Your task to perform on an android device: Go to Android settings Image 0: 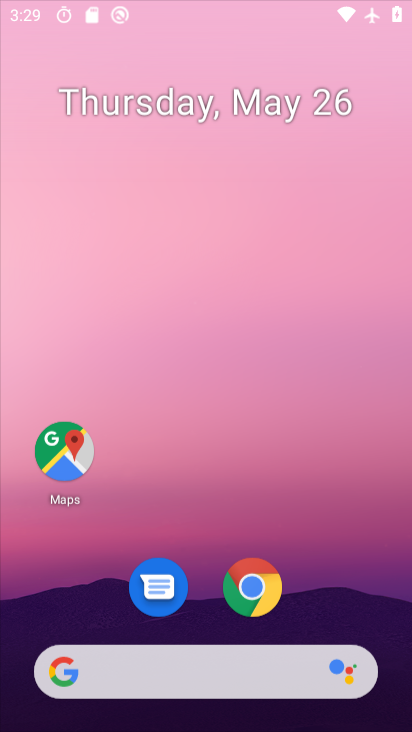
Step 0: drag from (294, 118) to (307, 8)
Your task to perform on an android device: Go to Android settings Image 1: 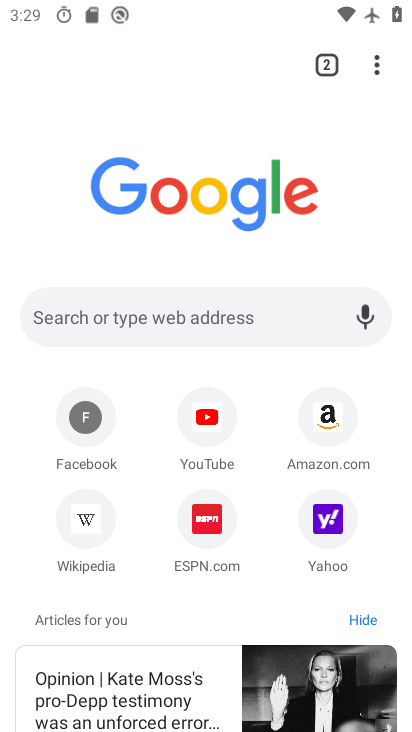
Step 1: press home button
Your task to perform on an android device: Go to Android settings Image 2: 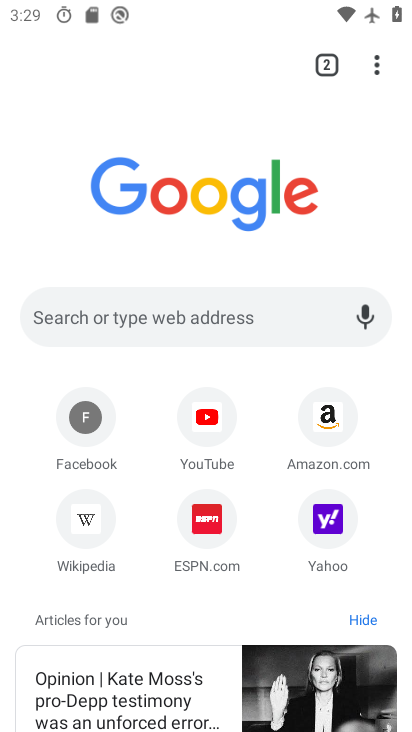
Step 2: press home button
Your task to perform on an android device: Go to Android settings Image 3: 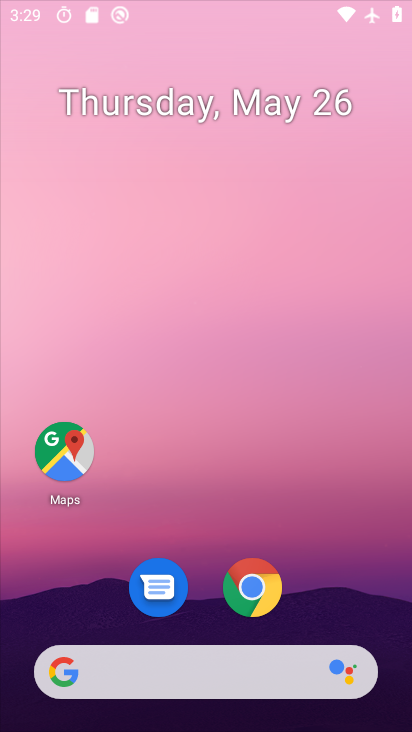
Step 3: press home button
Your task to perform on an android device: Go to Android settings Image 4: 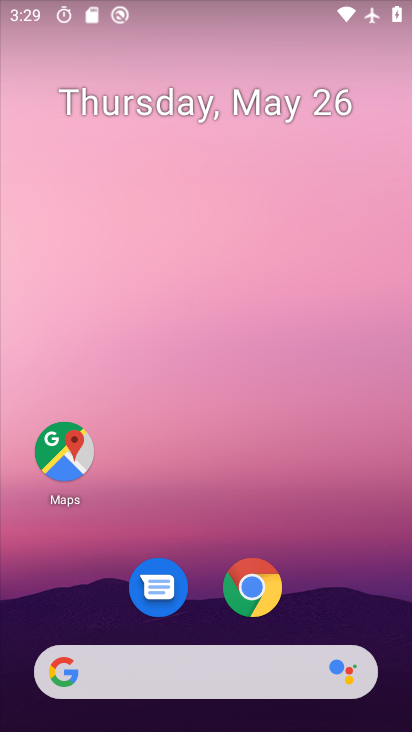
Step 4: drag from (337, 652) to (234, 9)
Your task to perform on an android device: Go to Android settings Image 5: 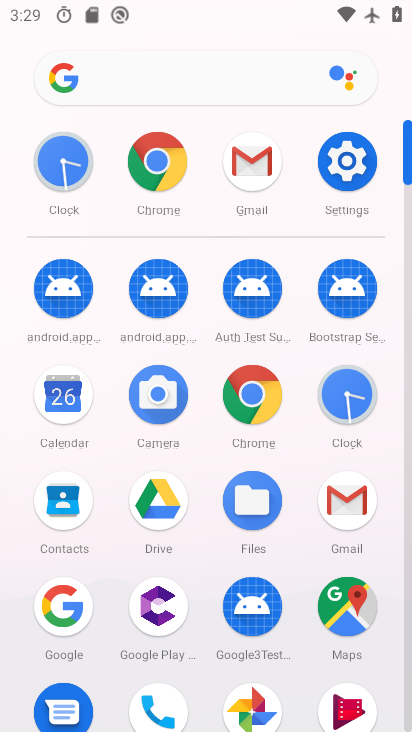
Step 5: click (347, 158)
Your task to perform on an android device: Go to Android settings Image 6: 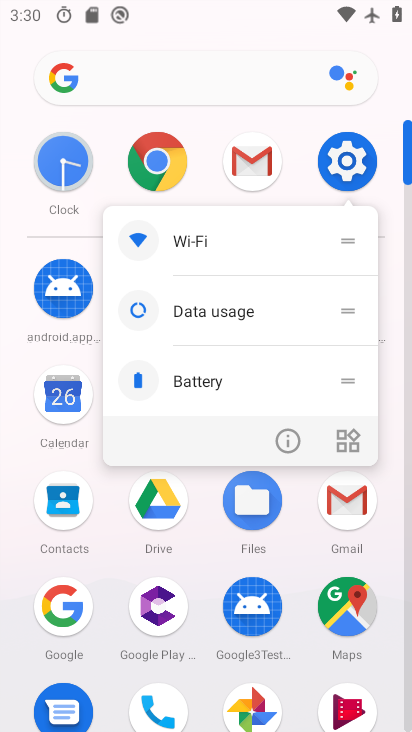
Step 6: click (342, 163)
Your task to perform on an android device: Go to Android settings Image 7: 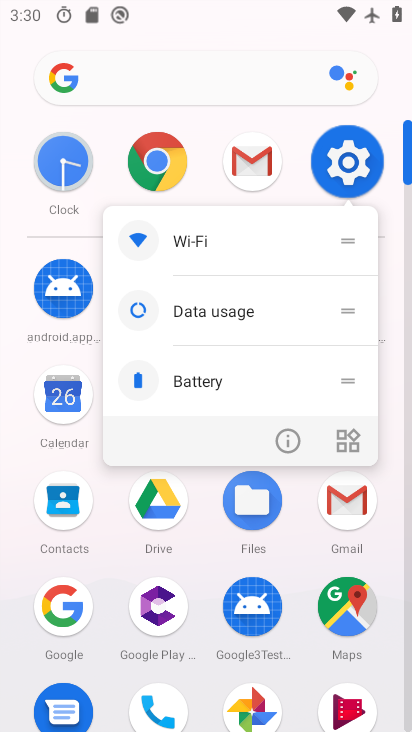
Step 7: click (342, 163)
Your task to perform on an android device: Go to Android settings Image 8: 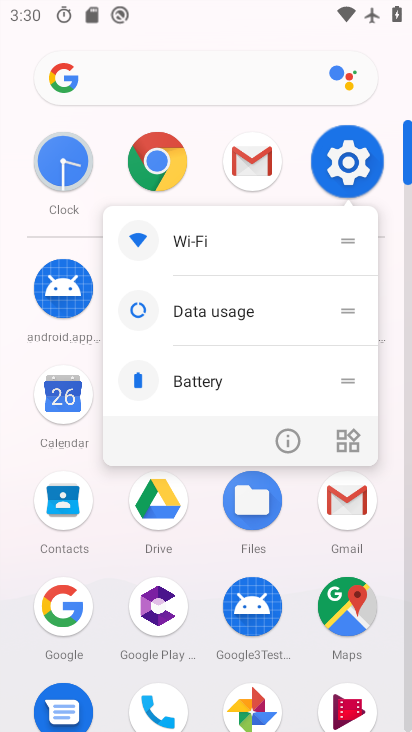
Step 8: click (342, 163)
Your task to perform on an android device: Go to Android settings Image 9: 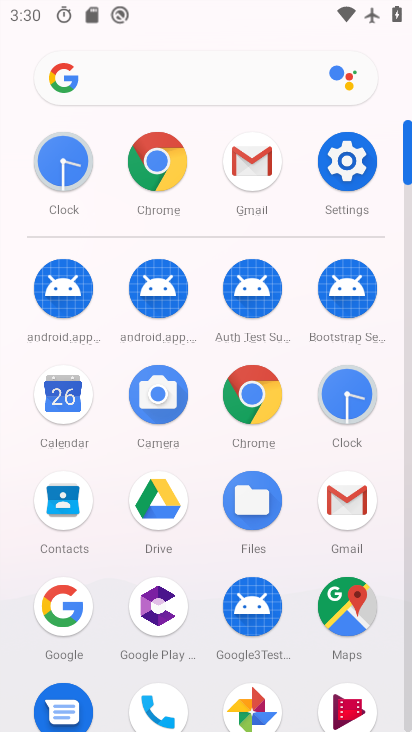
Step 9: click (342, 163)
Your task to perform on an android device: Go to Android settings Image 10: 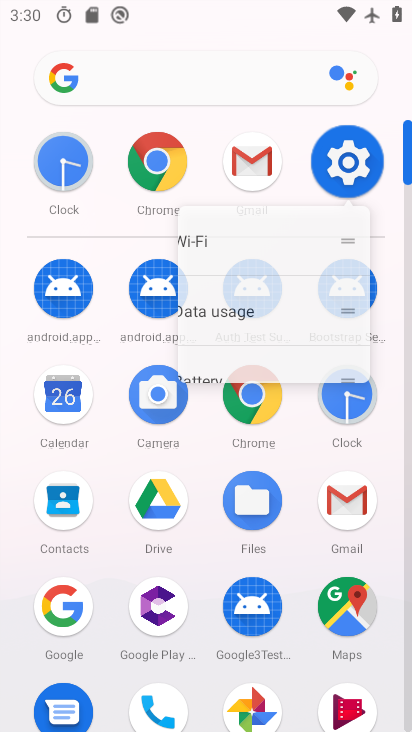
Step 10: click (346, 162)
Your task to perform on an android device: Go to Android settings Image 11: 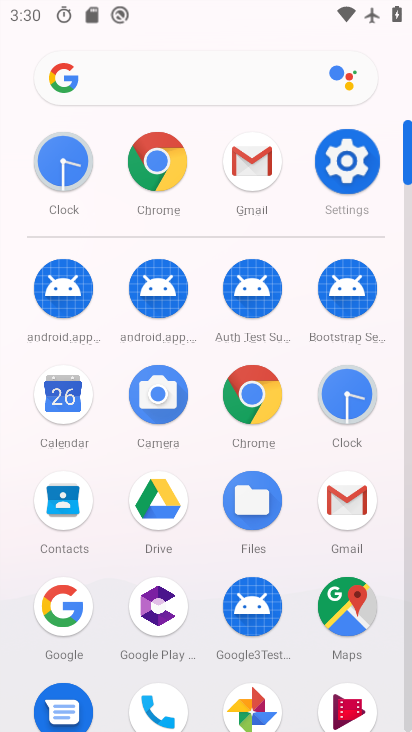
Step 11: click (346, 162)
Your task to perform on an android device: Go to Android settings Image 12: 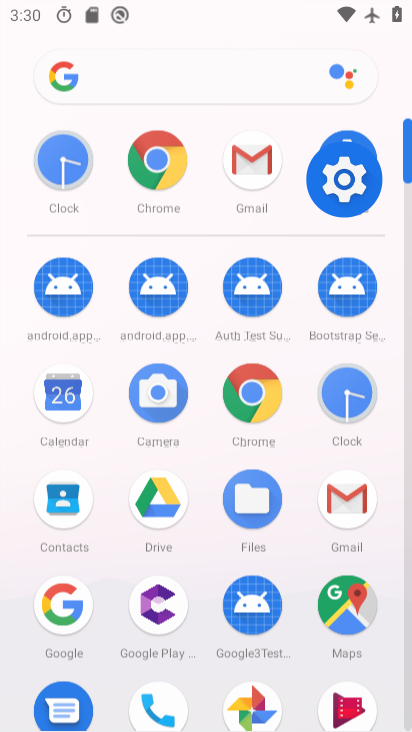
Step 12: click (346, 162)
Your task to perform on an android device: Go to Android settings Image 13: 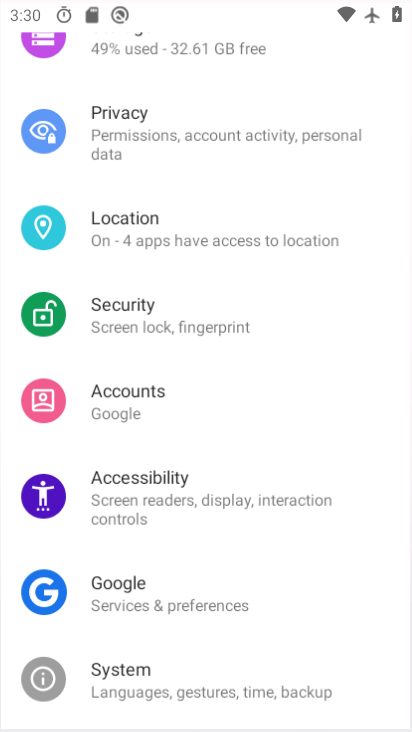
Step 13: click (346, 162)
Your task to perform on an android device: Go to Android settings Image 14: 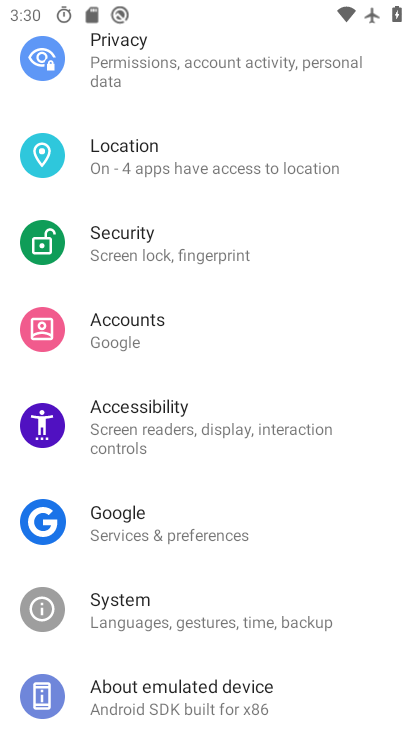
Step 14: click (346, 162)
Your task to perform on an android device: Go to Android settings Image 15: 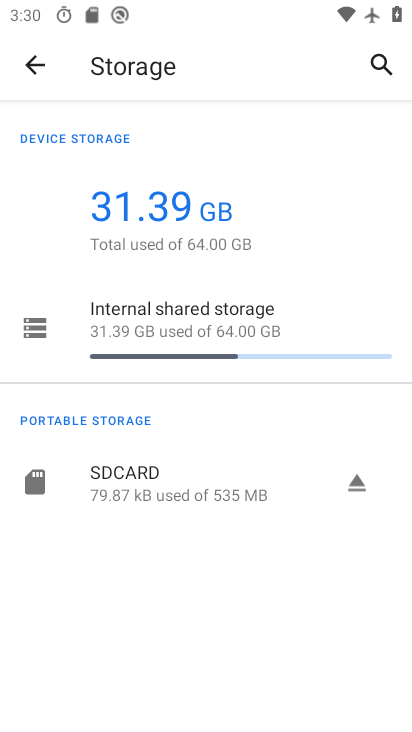
Step 15: click (37, 60)
Your task to perform on an android device: Go to Android settings Image 16: 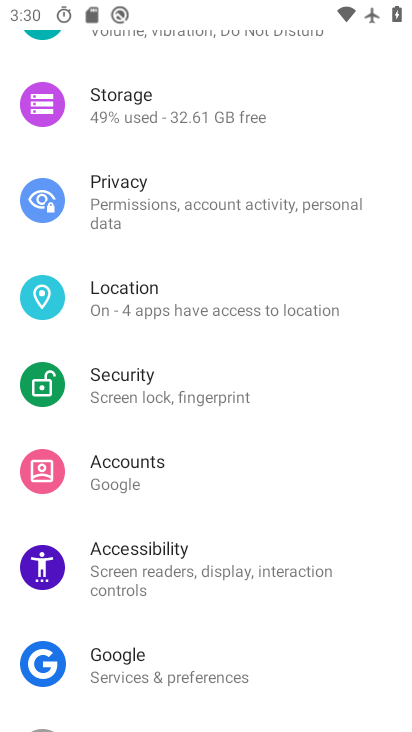
Step 16: drag from (258, 388) to (234, 105)
Your task to perform on an android device: Go to Android settings Image 17: 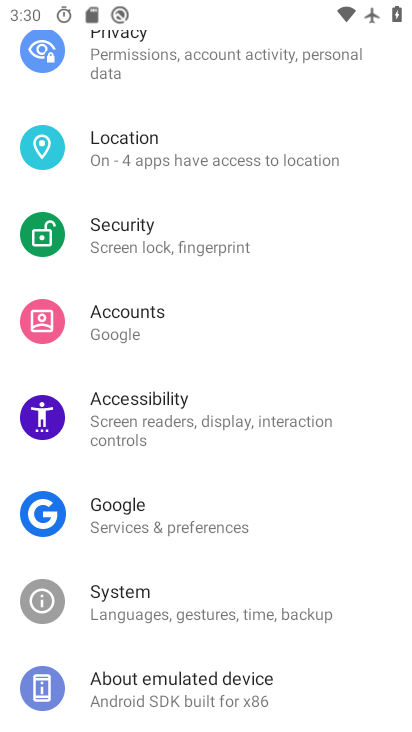
Step 17: drag from (229, 365) to (229, 129)
Your task to perform on an android device: Go to Android settings Image 18: 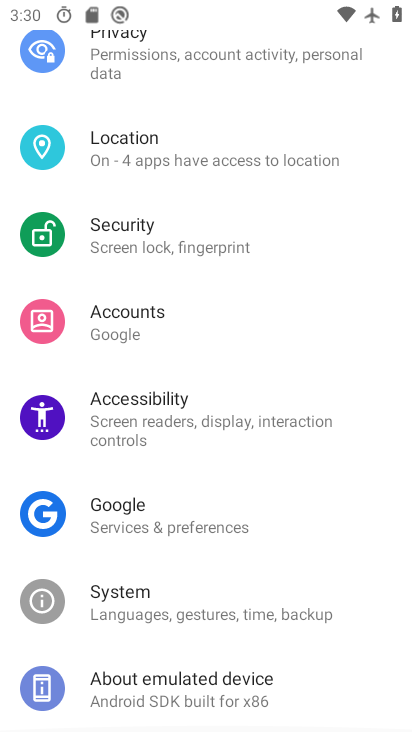
Step 18: drag from (217, 440) to (213, 146)
Your task to perform on an android device: Go to Android settings Image 19: 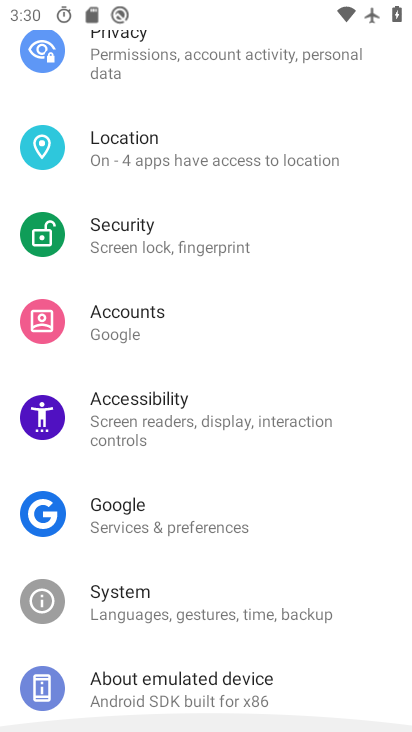
Step 19: drag from (163, 412) to (137, 190)
Your task to perform on an android device: Go to Android settings Image 20: 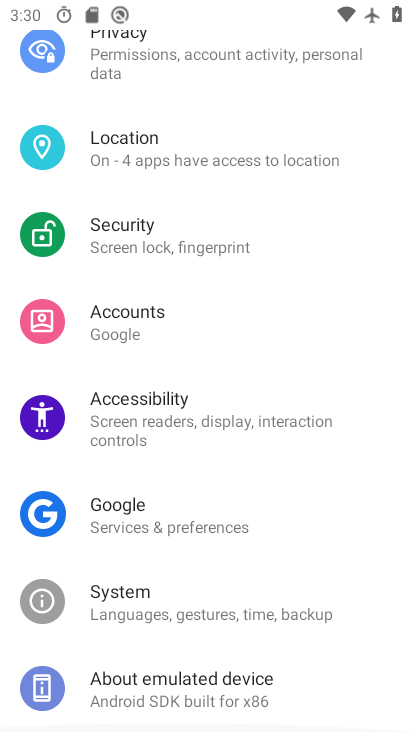
Step 20: drag from (176, 471) to (160, 347)
Your task to perform on an android device: Go to Android settings Image 21: 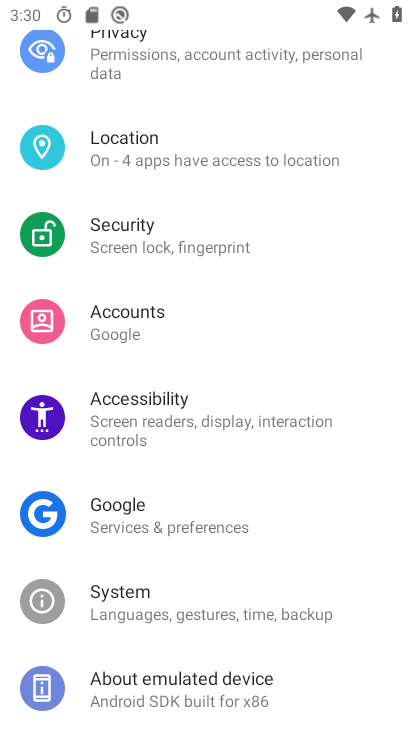
Step 21: click (140, 677)
Your task to perform on an android device: Go to Android settings Image 22: 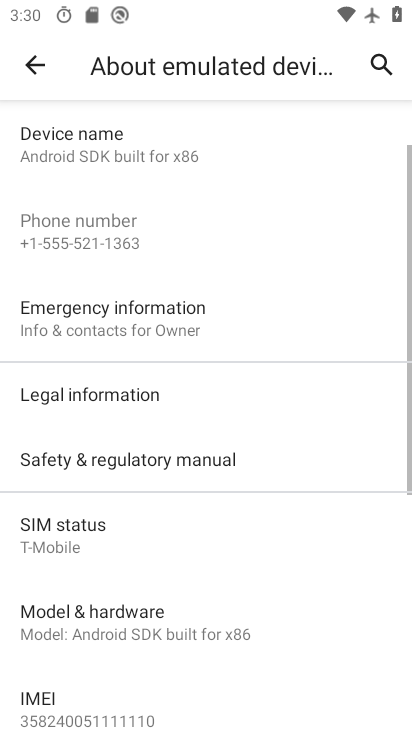
Step 22: click (161, 673)
Your task to perform on an android device: Go to Android settings Image 23: 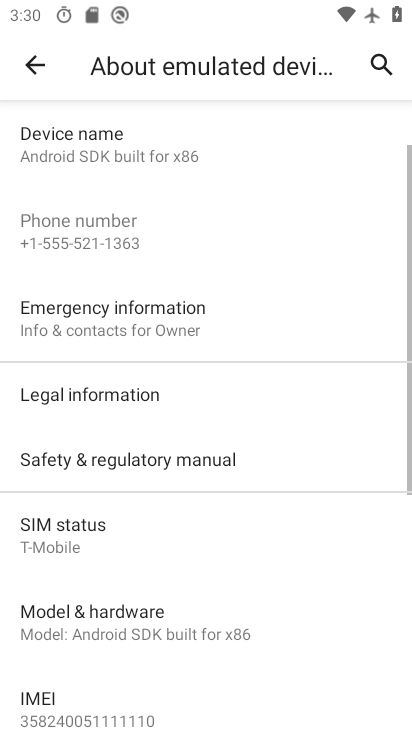
Step 23: click (175, 671)
Your task to perform on an android device: Go to Android settings Image 24: 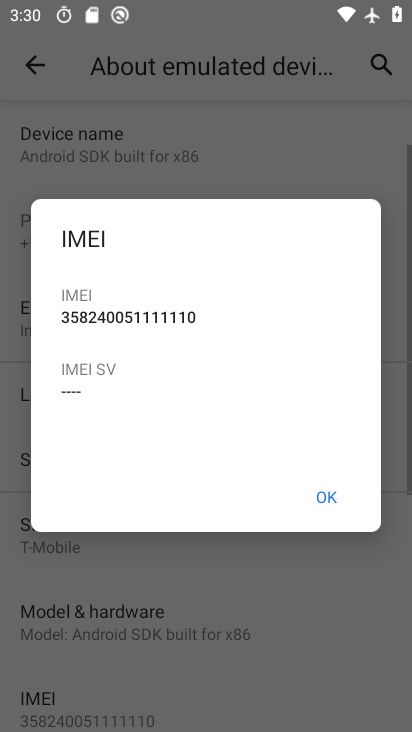
Step 24: click (323, 497)
Your task to perform on an android device: Go to Android settings Image 25: 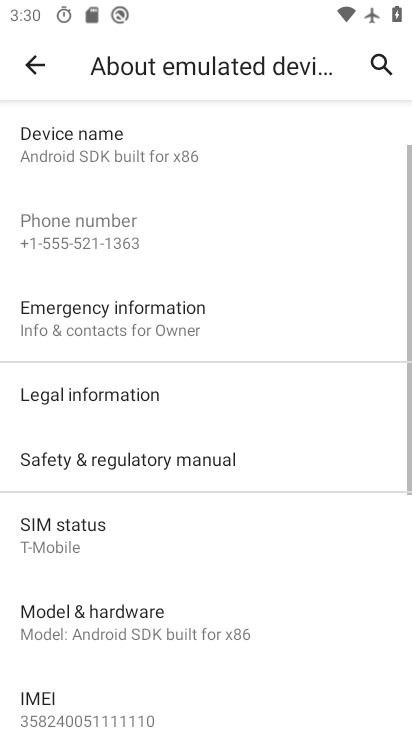
Step 25: task complete